Your task to perform on an android device: Do I have any events tomorrow? Image 0: 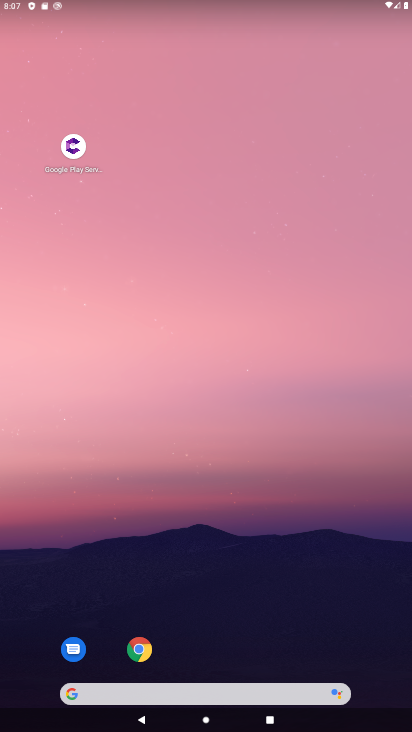
Step 0: drag from (263, 569) to (250, 80)
Your task to perform on an android device: Do I have any events tomorrow? Image 1: 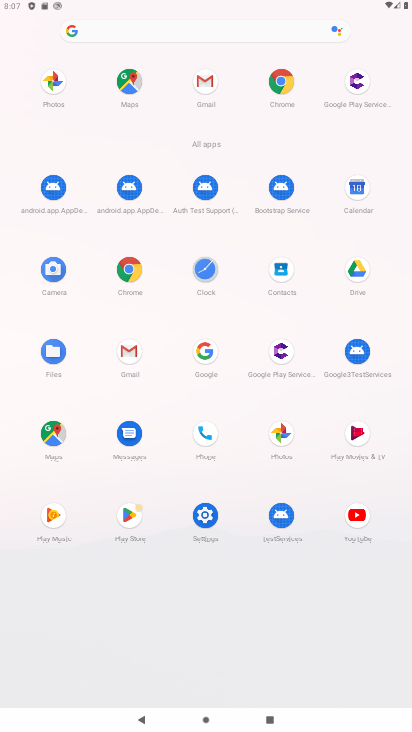
Step 1: click (356, 193)
Your task to perform on an android device: Do I have any events tomorrow? Image 2: 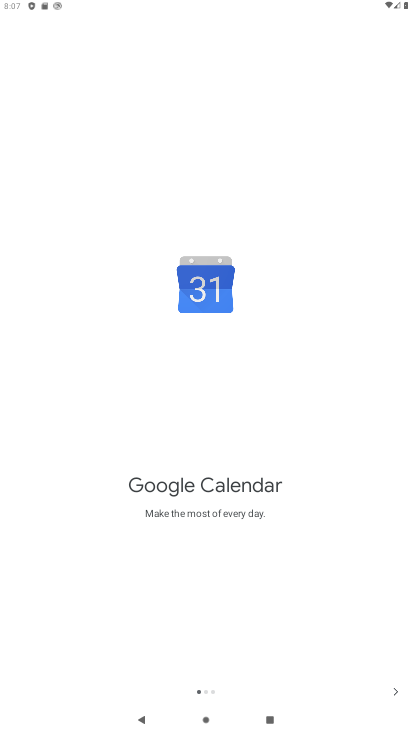
Step 2: click (394, 692)
Your task to perform on an android device: Do I have any events tomorrow? Image 3: 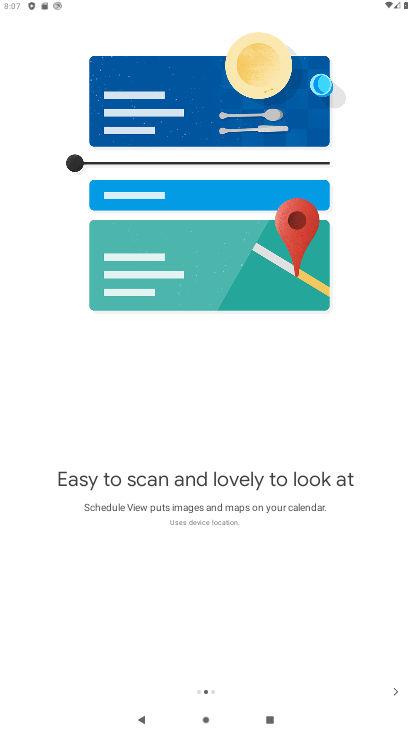
Step 3: click (394, 692)
Your task to perform on an android device: Do I have any events tomorrow? Image 4: 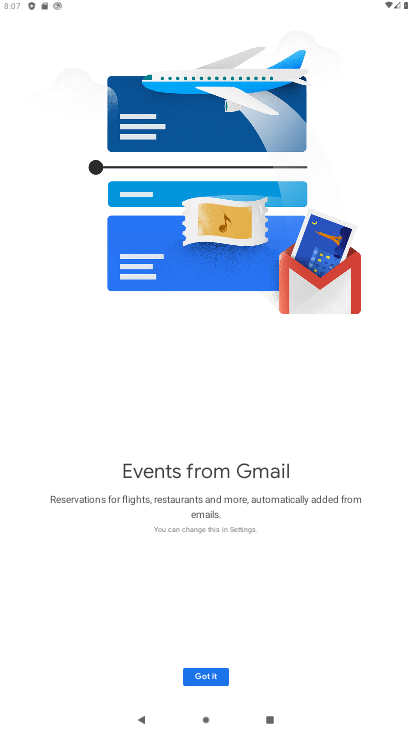
Step 4: click (394, 692)
Your task to perform on an android device: Do I have any events tomorrow? Image 5: 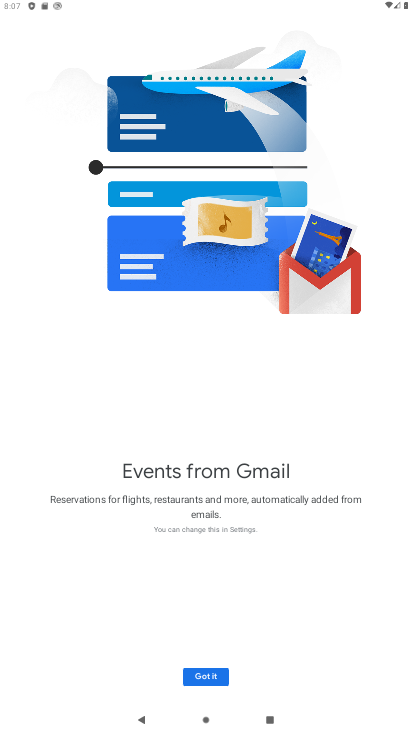
Step 5: click (211, 673)
Your task to perform on an android device: Do I have any events tomorrow? Image 6: 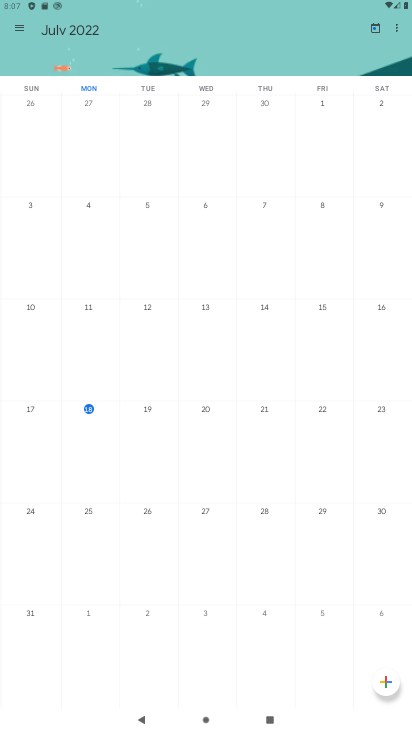
Step 6: click (22, 22)
Your task to perform on an android device: Do I have any events tomorrow? Image 7: 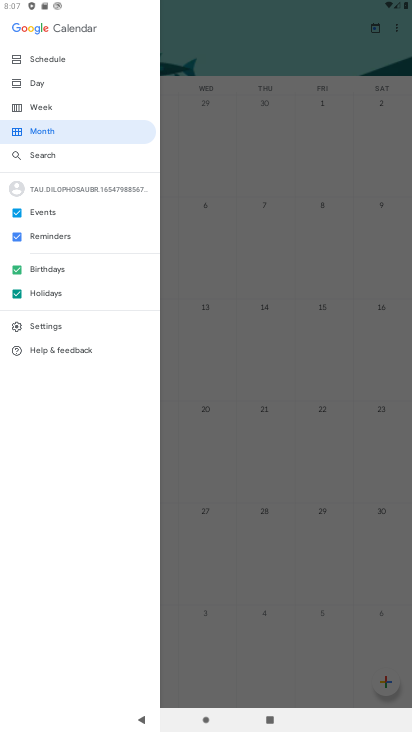
Step 7: click (51, 215)
Your task to perform on an android device: Do I have any events tomorrow? Image 8: 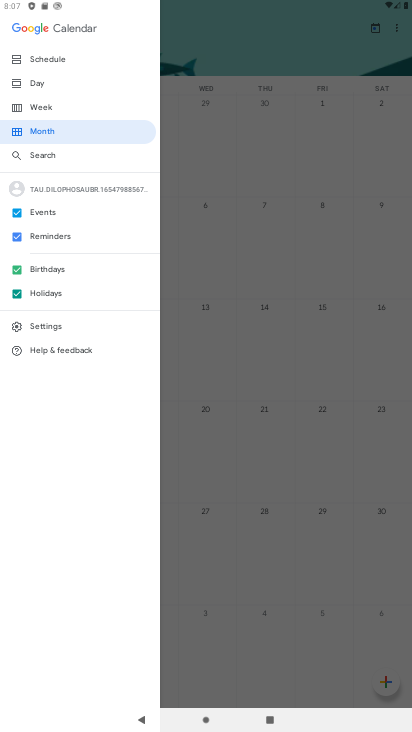
Step 8: click (44, 212)
Your task to perform on an android device: Do I have any events tomorrow? Image 9: 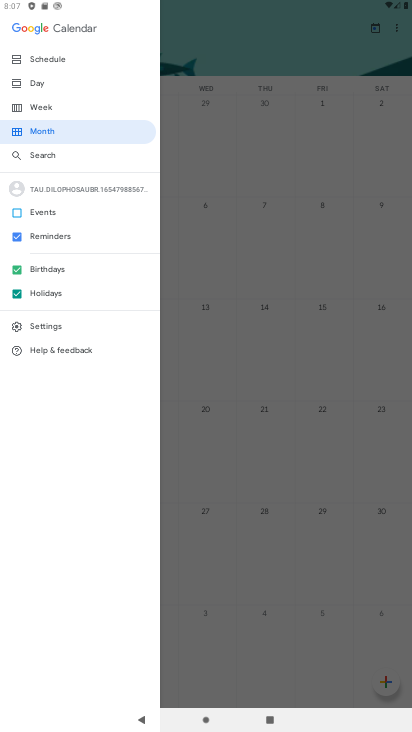
Step 9: click (231, 238)
Your task to perform on an android device: Do I have any events tomorrow? Image 10: 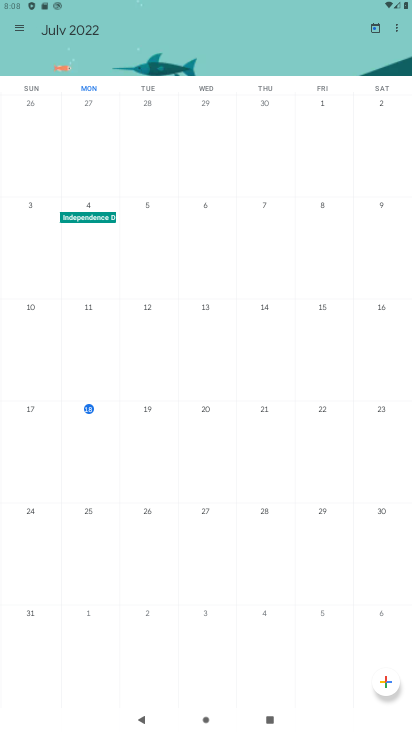
Step 10: task complete